Your task to perform on an android device: Search for pizza restaurants on Maps Image 0: 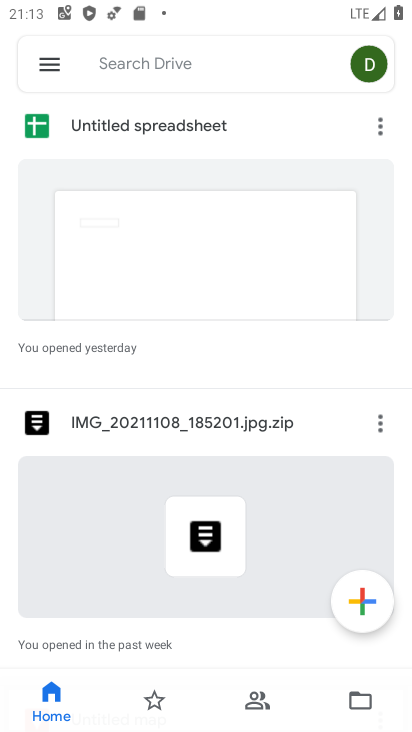
Step 0: press home button
Your task to perform on an android device: Search for pizza restaurants on Maps Image 1: 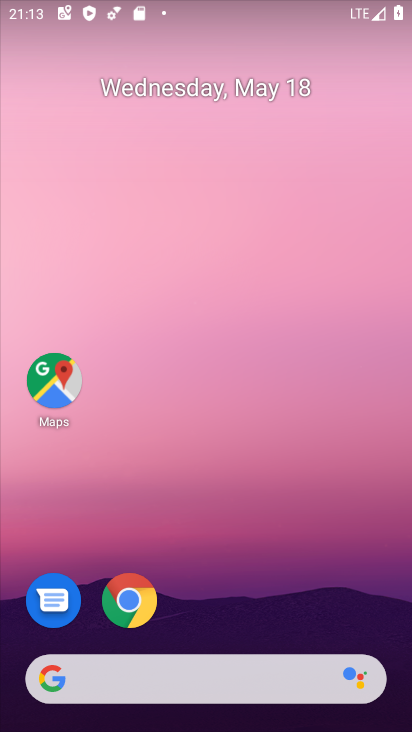
Step 1: click (47, 380)
Your task to perform on an android device: Search for pizza restaurants on Maps Image 2: 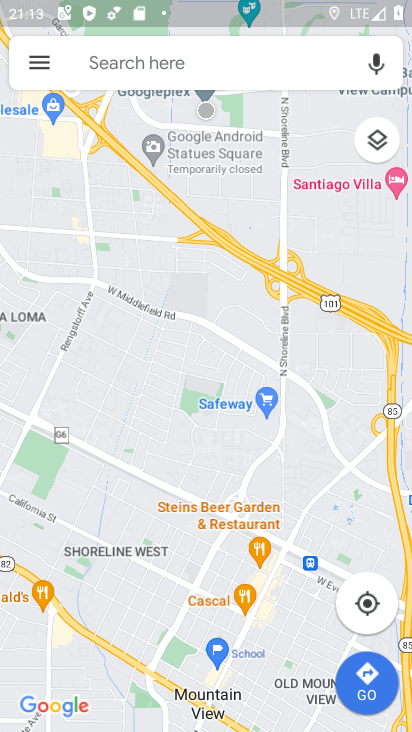
Step 2: click (174, 61)
Your task to perform on an android device: Search for pizza restaurants on Maps Image 3: 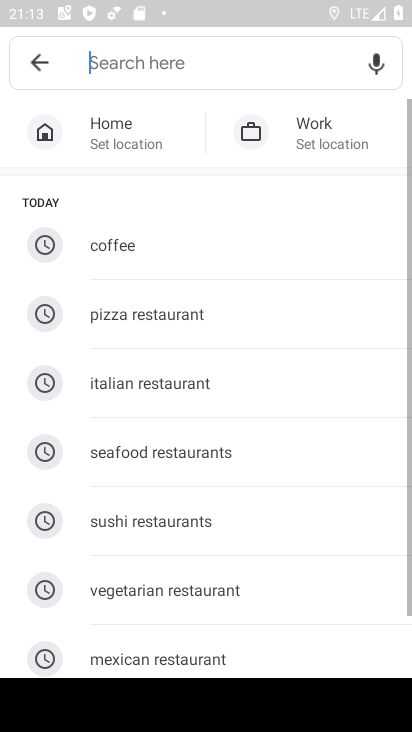
Step 3: click (165, 302)
Your task to perform on an android device: Search for pizza restaurants on Maps Image 4: 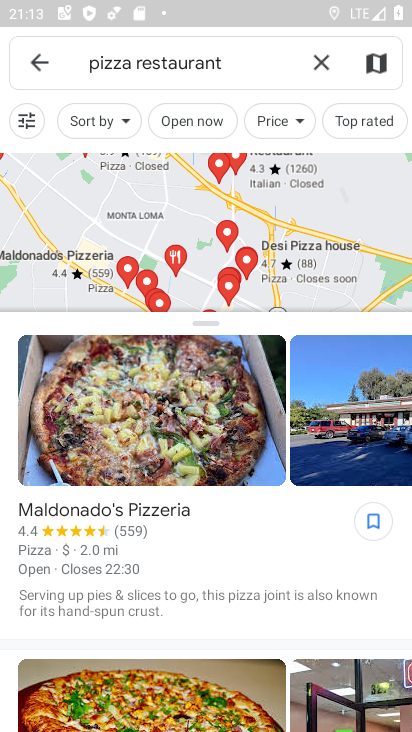
Step 4: task complete